Your task to perform on an android device: change the clock display to digital Image 0: 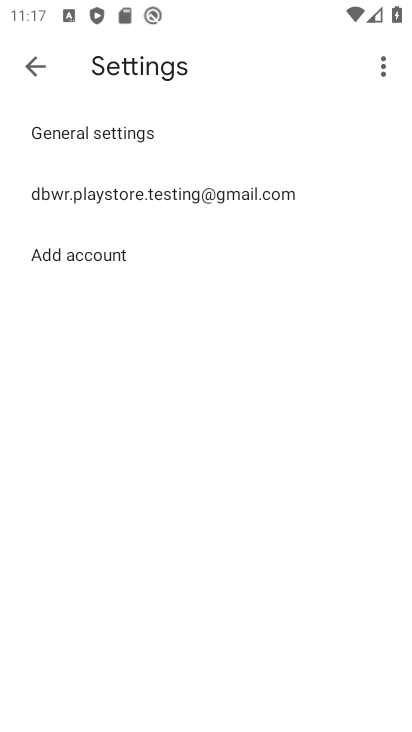
Step 0: press home button
Your task to perform on an android device: change the clock display to digital Image 1: 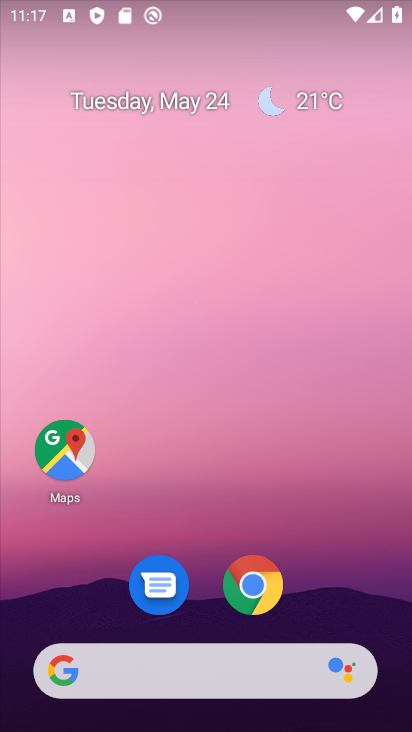
Step 1: drag from (238, 489) to (282, 61)
Your task to perform on an android device: change the clock display to digital Image 2: 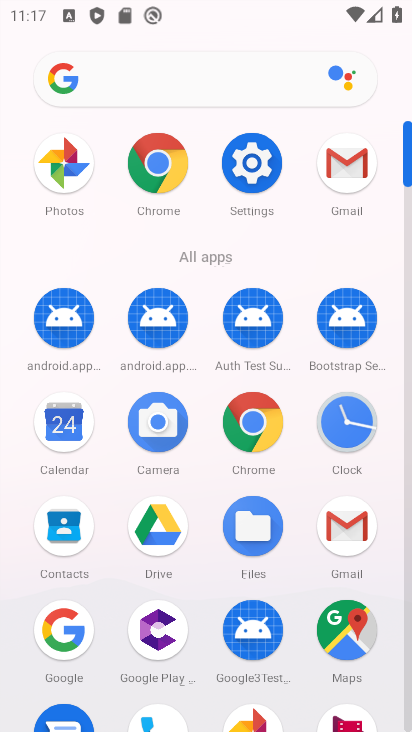
Step 2: click (342, 433)
Your task to perform on an android device: change the clock display to digital Image 3: 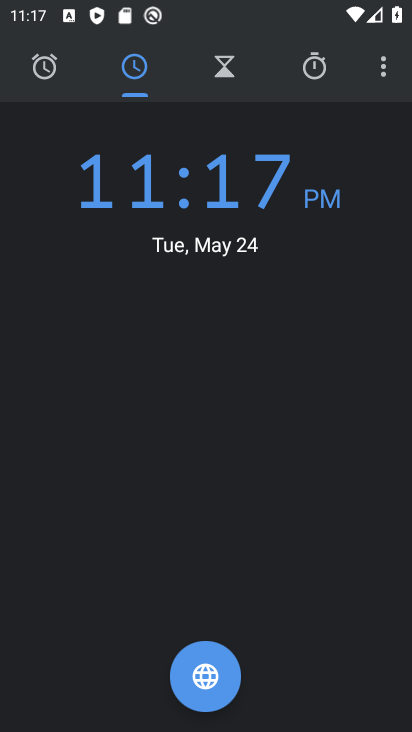
Step 3: task complete